Your task to perform on an android device: open chrome privacy settings Image 0: 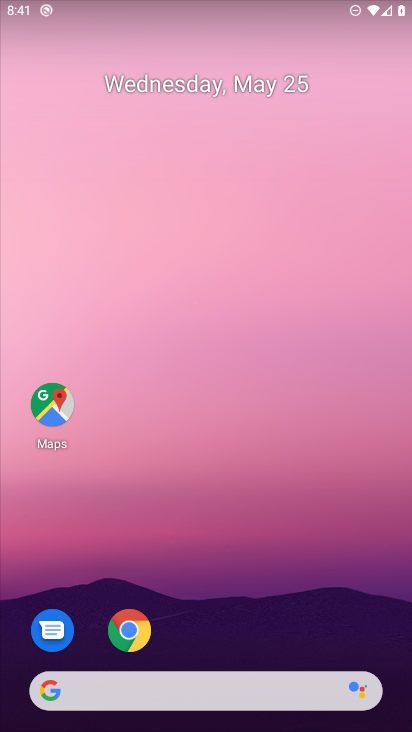
Step 0: click (133, 633)
Your task to perform on an android device: open chrome privacy settings Image 1: 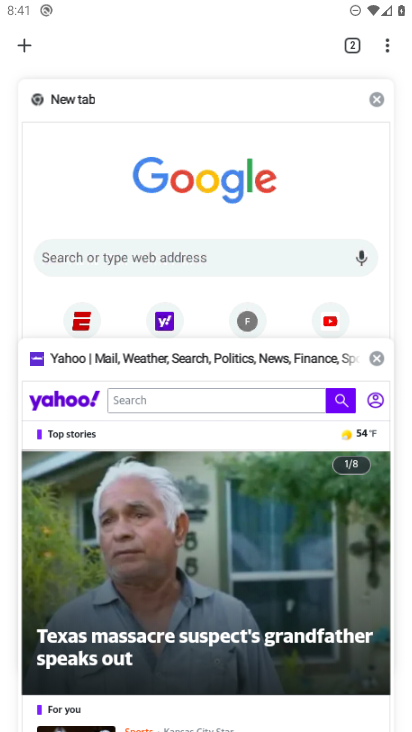
Step 1: click (390, 46)
Your task to perform on an android device: open chrome privacy settings Image 2: 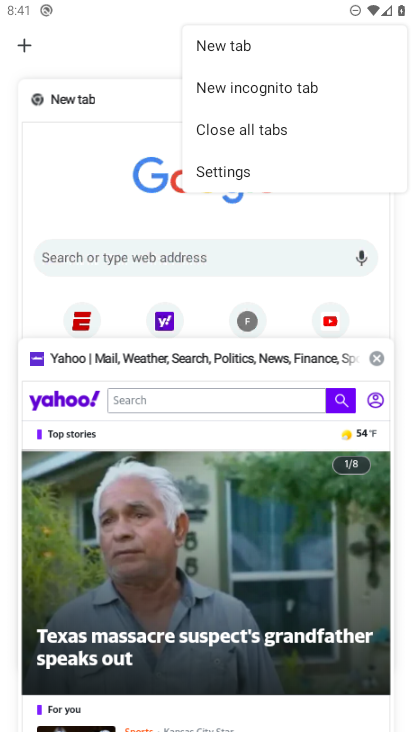
Step 2: click (207, 170)
Your task to perform on an android device: open chrome privacy settings Image 3: 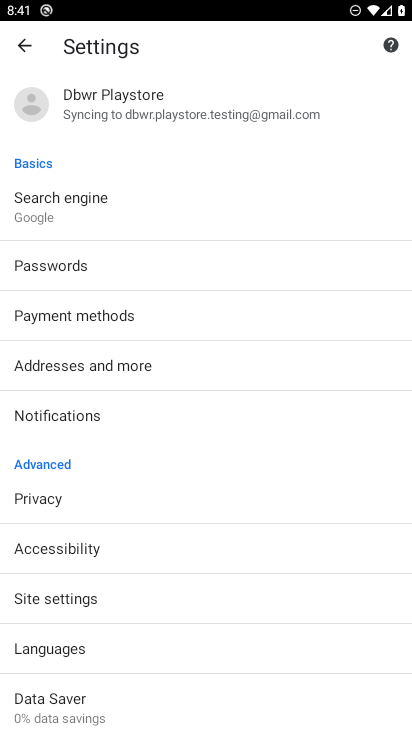
Step 3: click (44, 493)
Your task to perform on an android device: open chrome privacy settings Image 4: 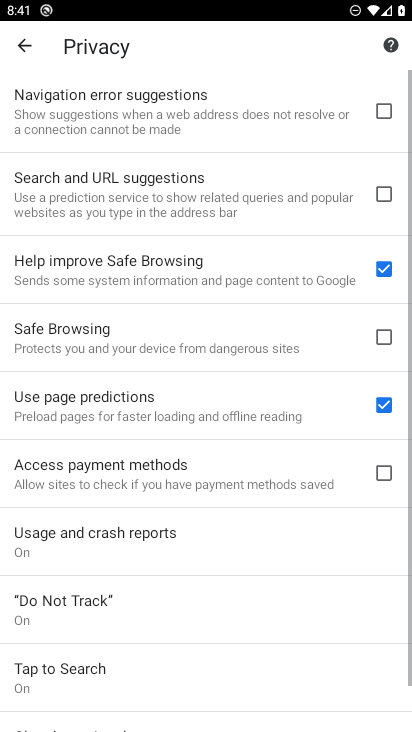
Step 4: task complete